Your task to perform on an android device: see creations saved in the google photos Image 0: 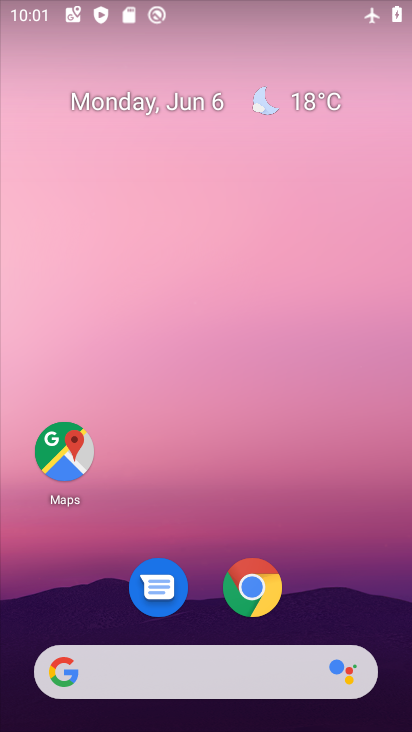
Step 0: drag from (313, 441) to (277, 127)
Your task to perform on an android device: see creations saved in the google photos Image 1: 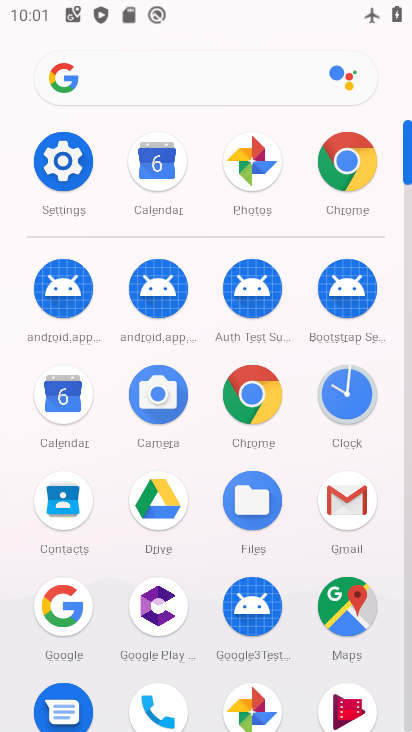
Step 1: click (259, 714)
Your task to perform on an android device: see creations saved in the google photos Image 2: 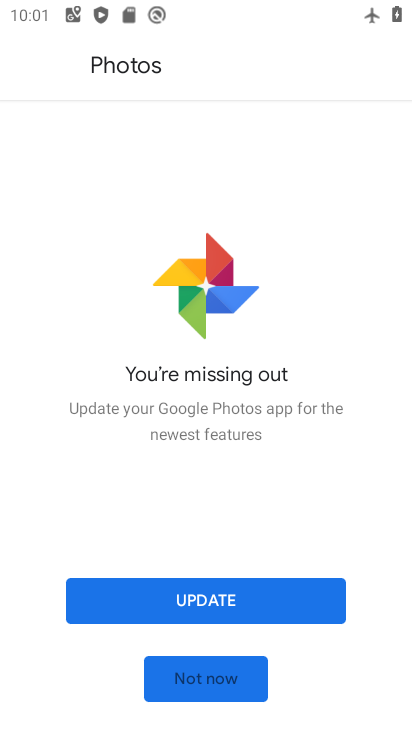
Step 2: click (257, 602)
Your task to perform on an android device: see creations saved in the google photos Image 3: 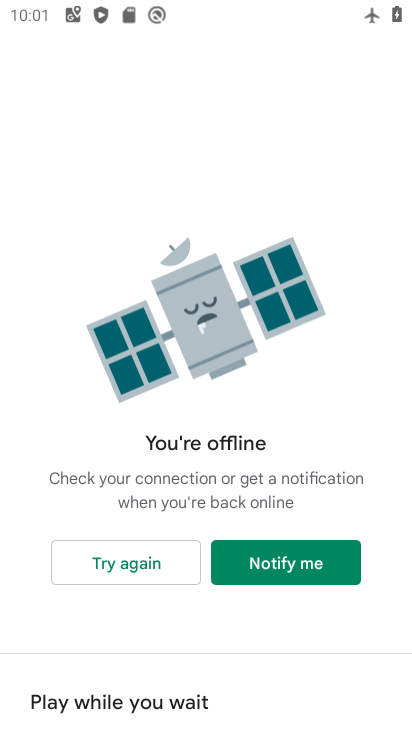
Step 3: task complete